Your task to perform on an android device: visit the assistant section in the google photos Image 0: 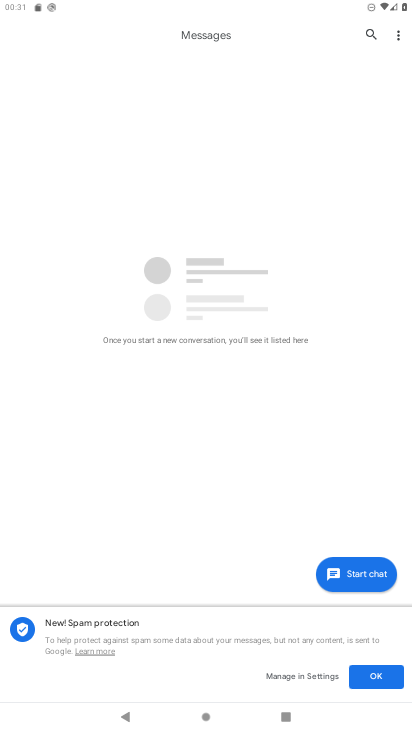
Step 0: press home button
Your task to perform on an android device: visit the assistant section in the google photos Image 1: 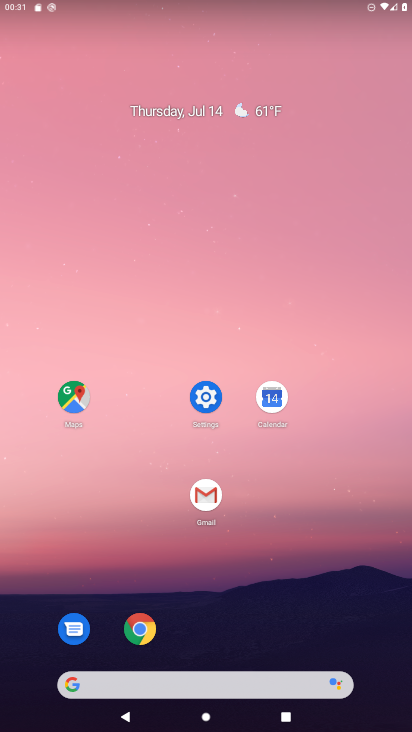
Step 1: drag from (394, 664) to (358, 134)
Your task to perform on an android device: visit the assistant section in the google photos Image 2: 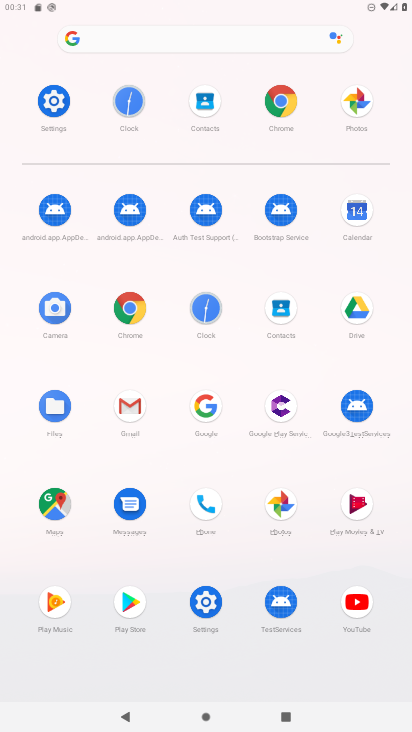
Step 2: click (274, 499)
Your task to perform on an android device: visit the assistant section in the google photos Image 3: 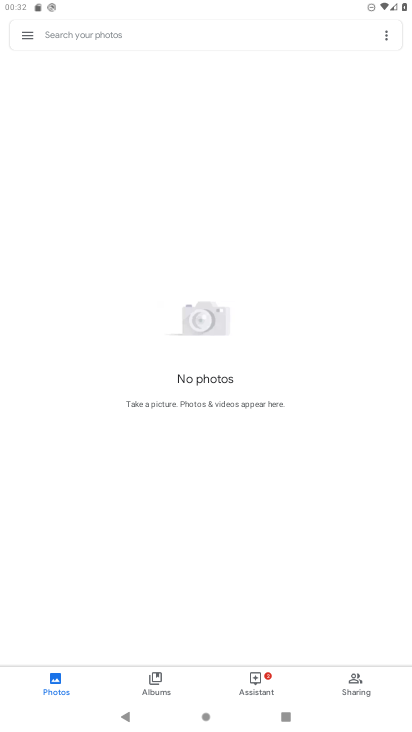
Step 3: click (161, 685)
Your task to perform on an android device: visit the assistant section in the google photos Image 4: 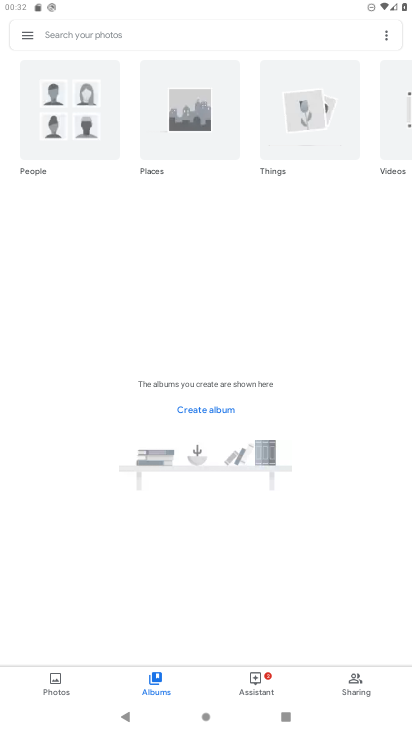
Step 4: task complete